Your task to perform on an android device: turn off improve location accuracy Image 0: 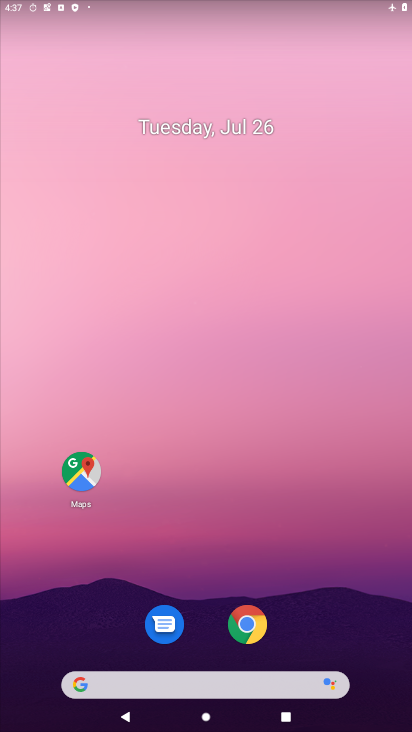
Step 0: drag from (267, 688) to (280, 63)
Your task to perform on an android device: turn off improve location accuracy Image 1: 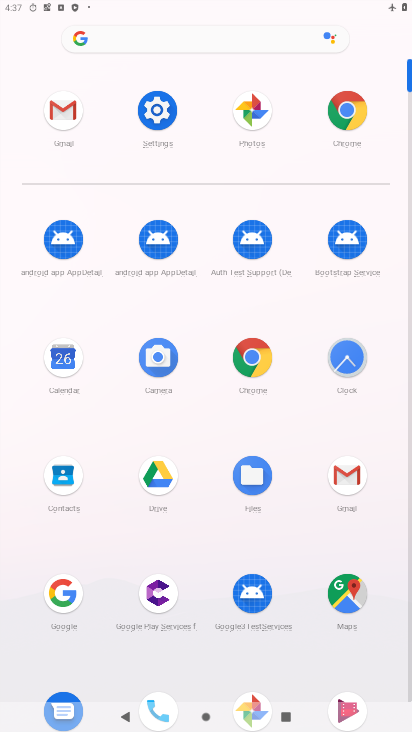
Step 1: click (164, 104)
Your task to perform on an android device: turn off improve location accuracy Image 2: 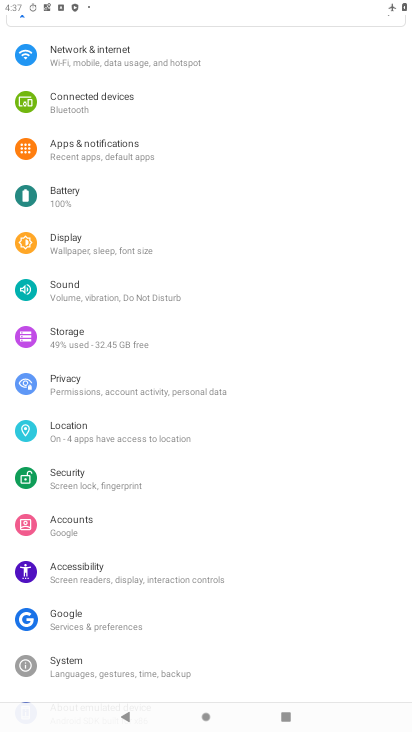
Step 2: click (65, 438)
Your task to perform on an android device: turn off improve location accuracy Image 3: 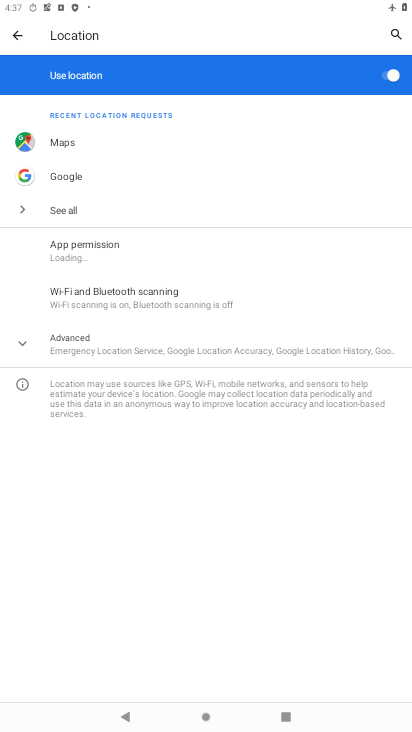
Step 3: click (176, 350)
Your task to perform on an android device: turn off improve location accuracy Image 4: 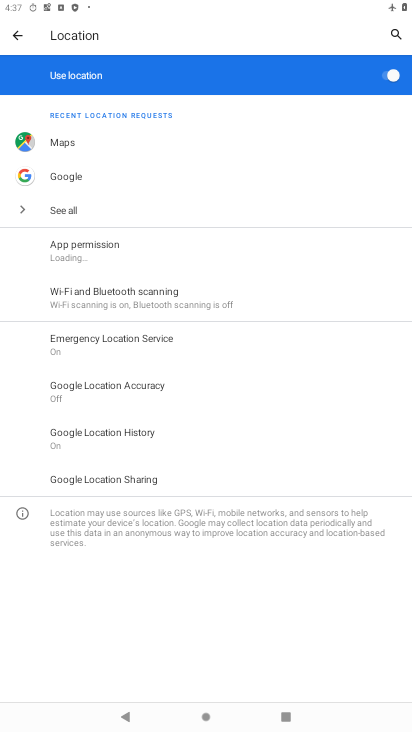
Step 4: click (145, 384)
Your task to perform on an android device: turn off improve location accuracy Image 5: 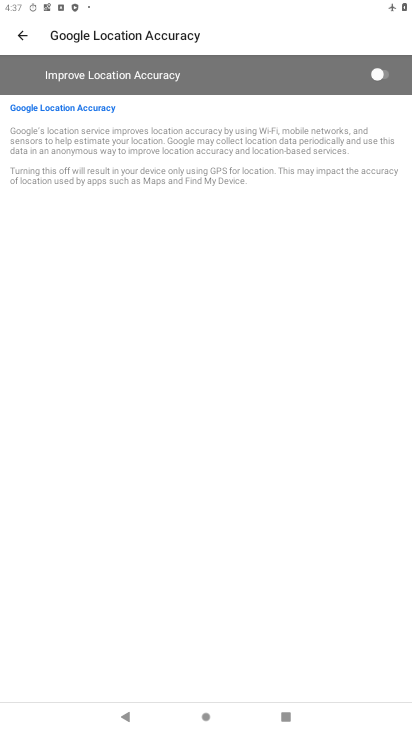
Step 5: task complete